Your task to perform on an android device: Do I have any events today? Image 0: 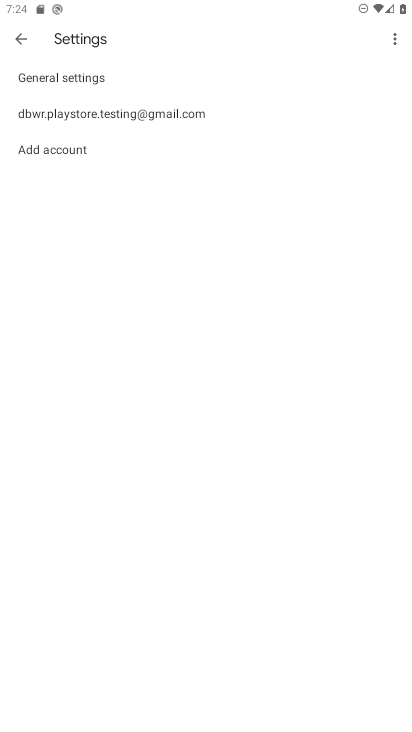
Step 0: press home button
Your task to perform on an android device: Do I have any events today? Image 1: 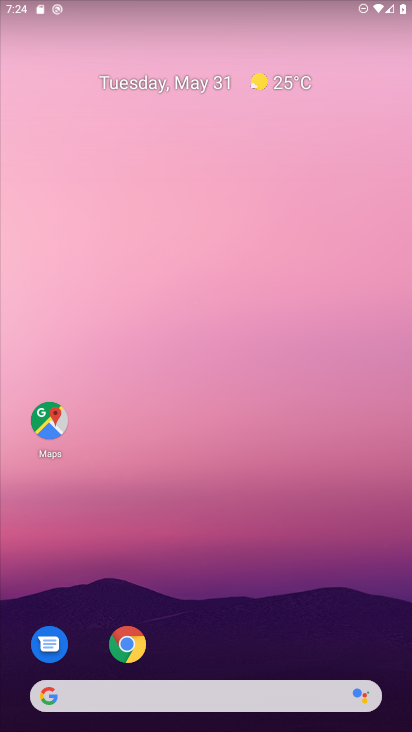
Step 1: drag from (211, 719) to (237, 91)
Your task to perform on an android device: Do I have any events today? Image 2: 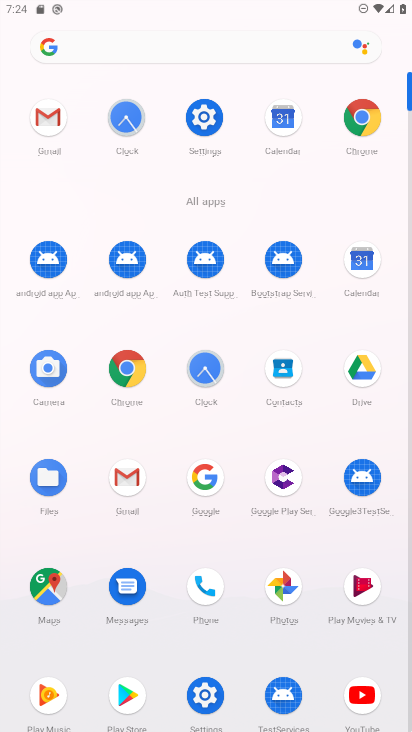
Step 2: click (357, 256)
Your task to perform on an android device: Do I have any events today? Image 3: 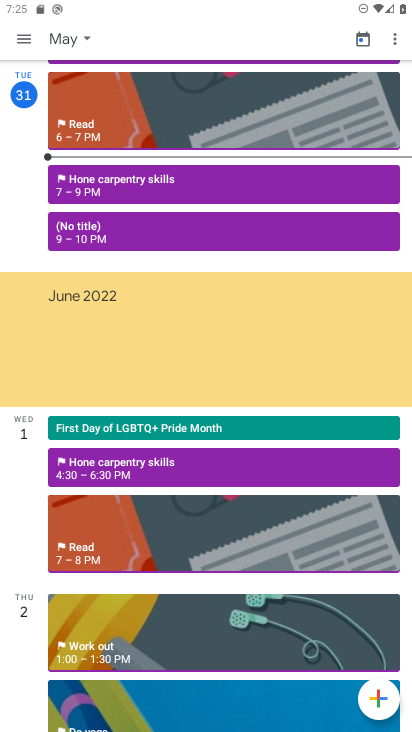
Step 3: task complete